Your task to perform on an android device: check battery use Image 0: 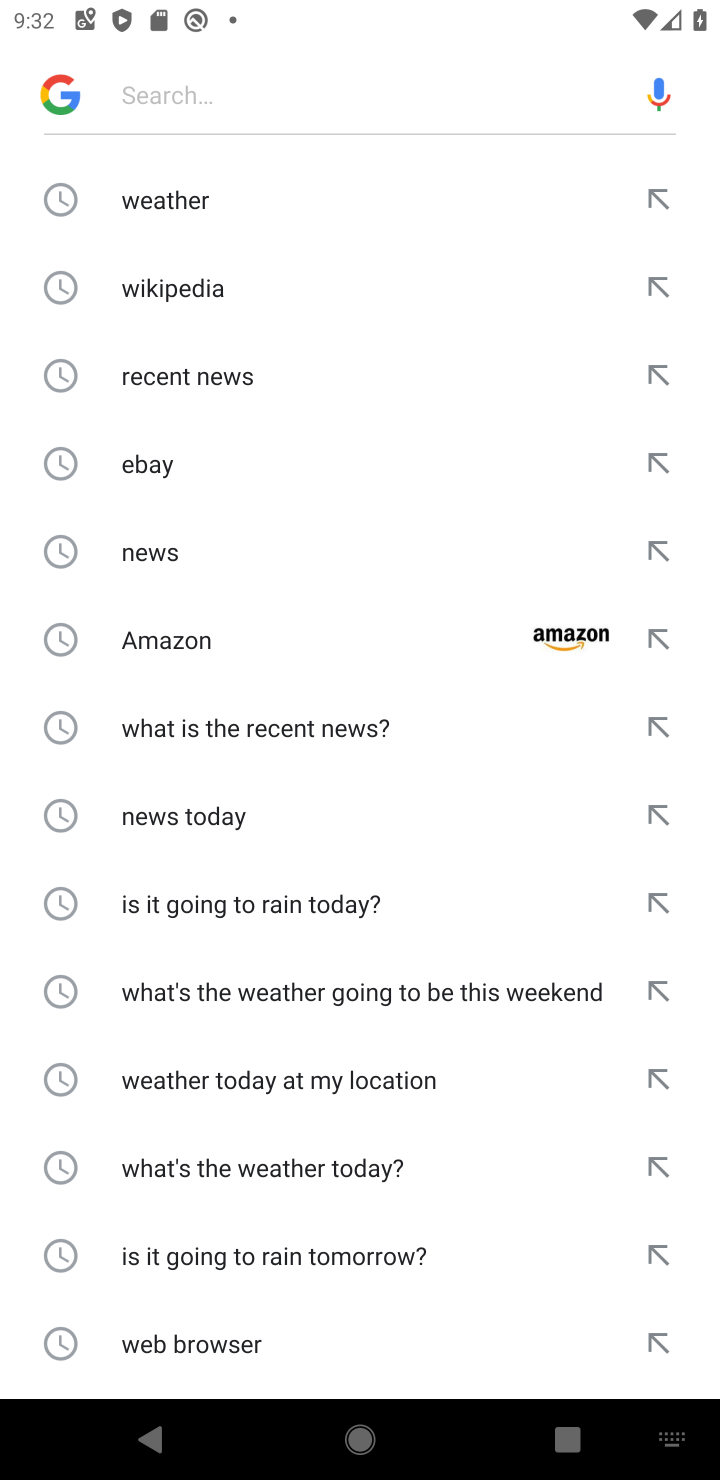
Step 0: press home button
Your task to perform on an android device: check battery use Image 1: 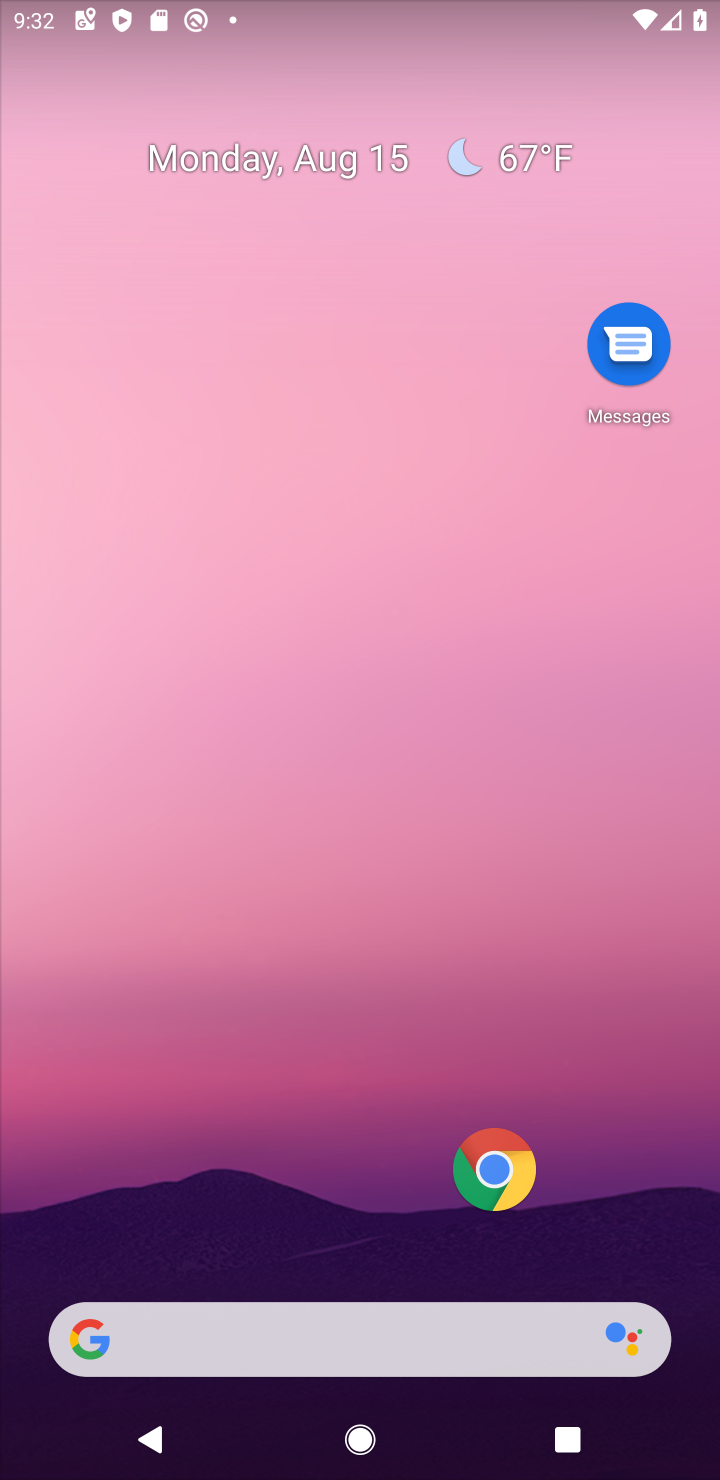
Step 1: click (610, 34)
Your task to perform on an android device: check battery use Image 2: 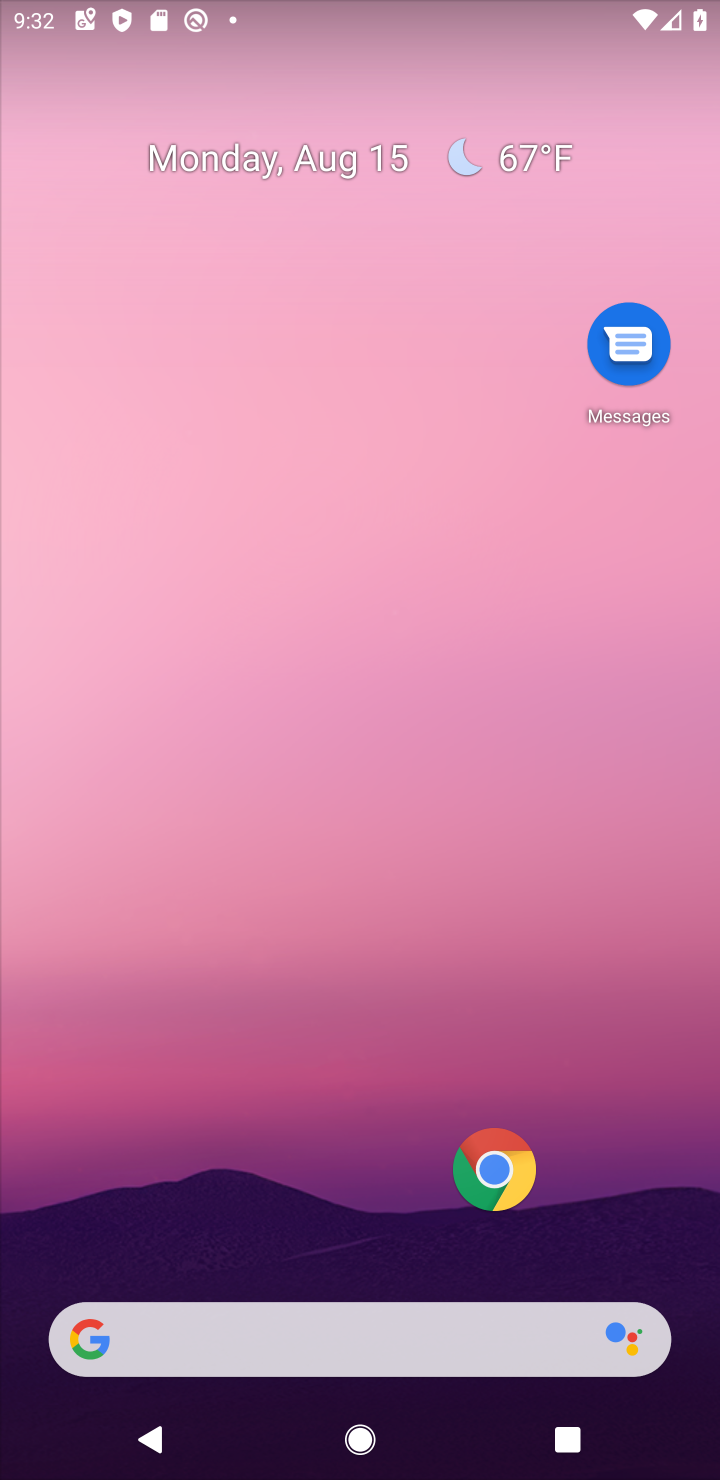
Step 2: press home button
Your task to perform on an android device: check battery use Image 3: 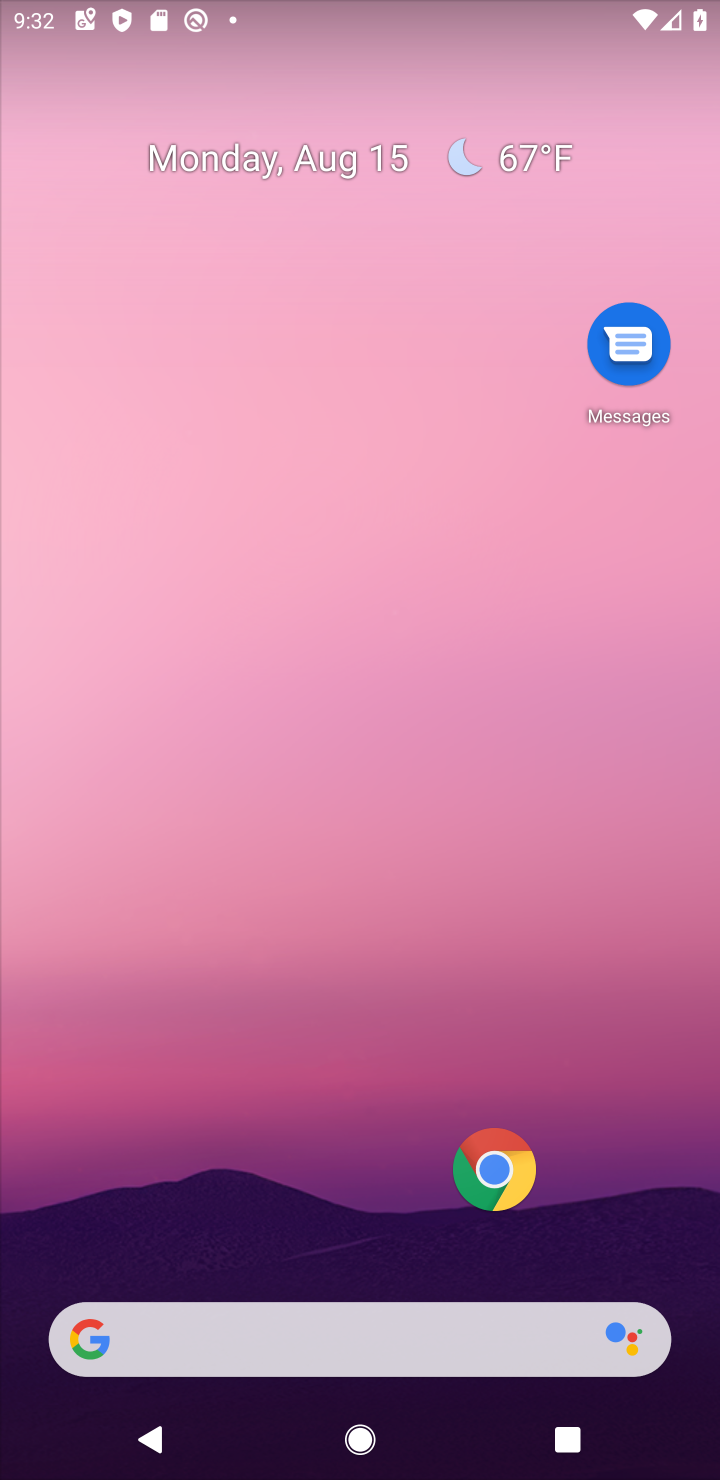
Step 3: drag from (366, 1165) to (595, 173)
Your task to perform on an android device: check battery use Image 4: 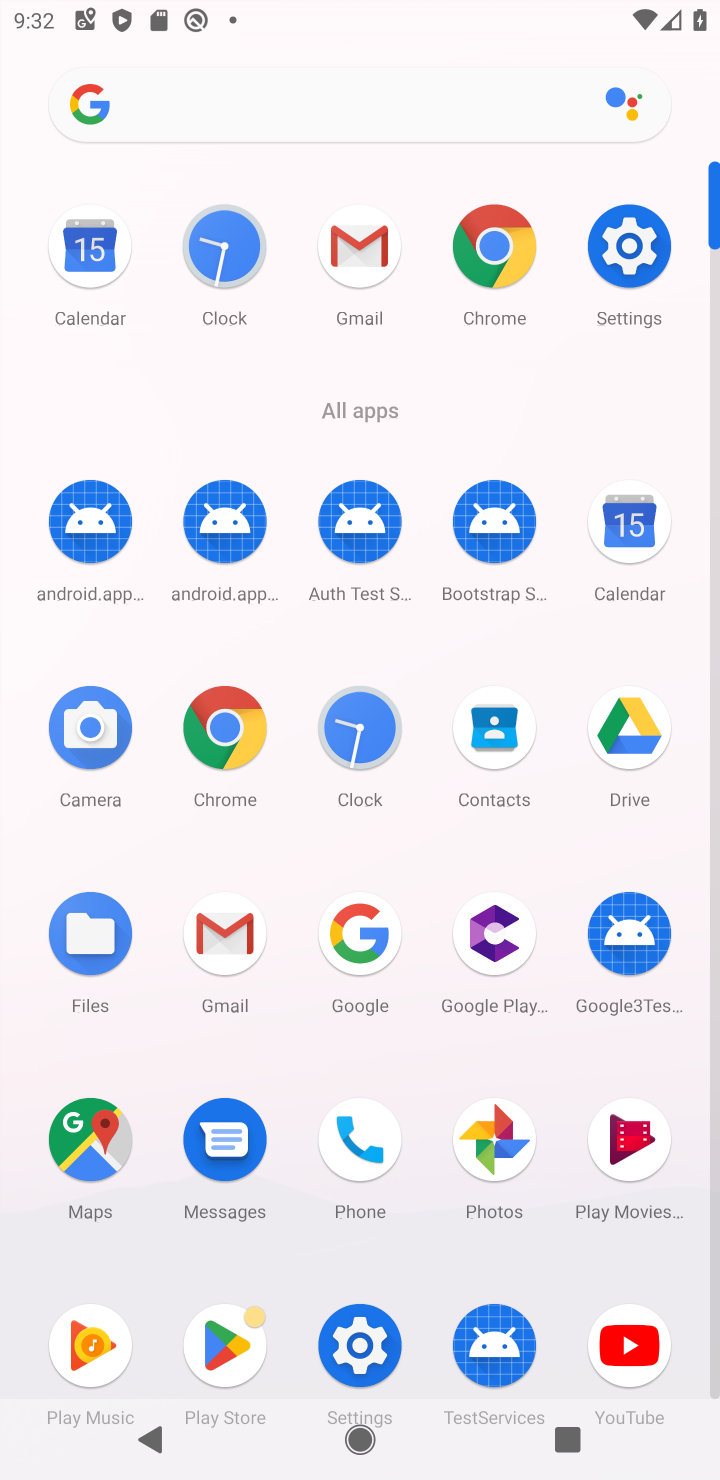
Step 4: drag from (637, 245) to (627, 804)
Your task to perform on an android device: check battery use Image 5: 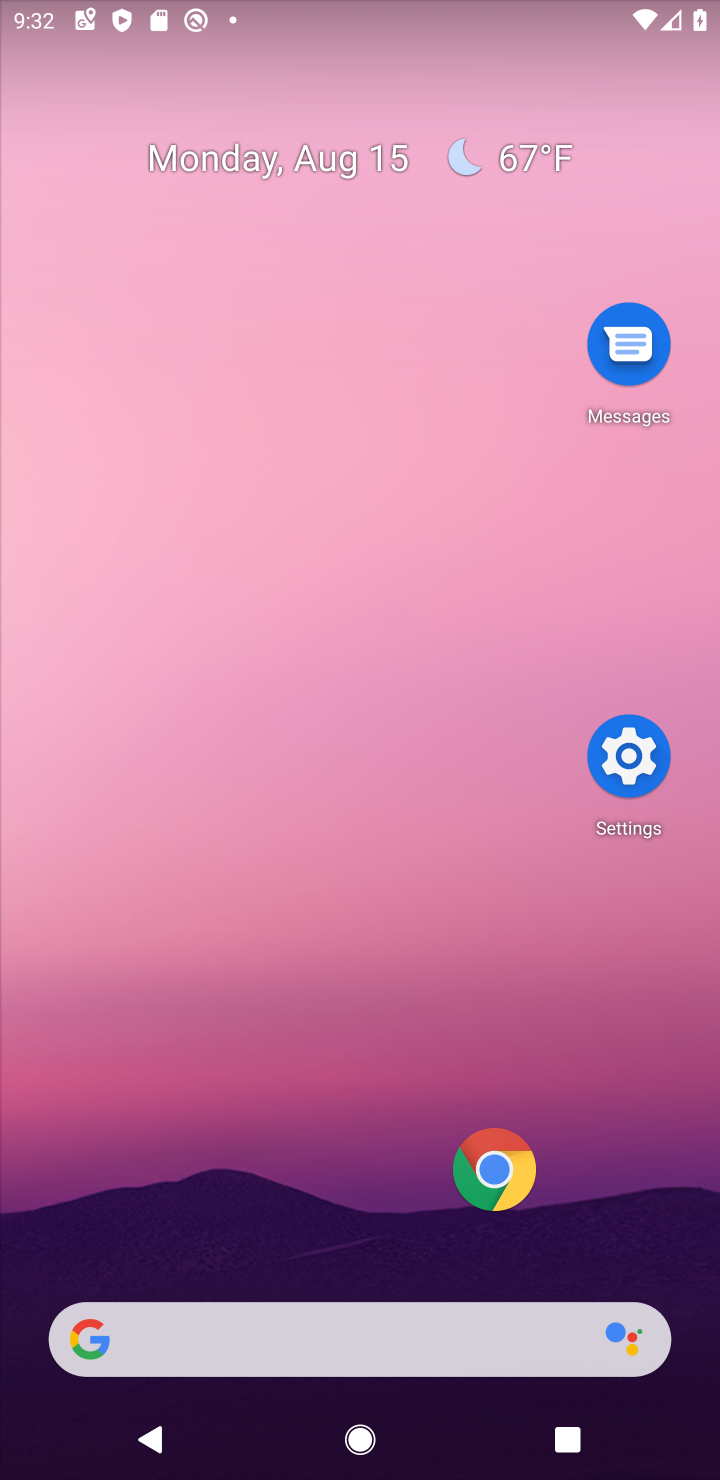
Step 5: drag from (633, 334) to (105, 1147)
Your task to perform on an android device: check battery use Image 6: 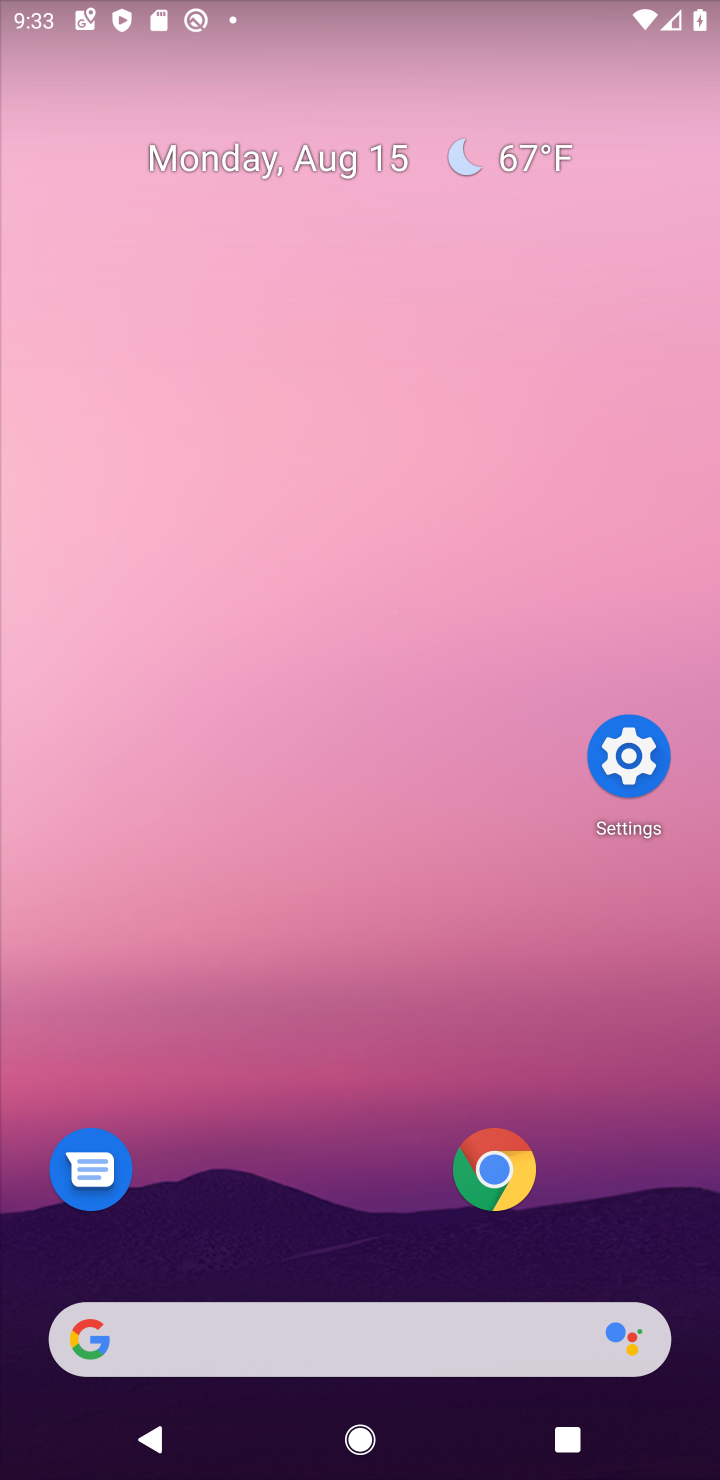
Step 6: click (610, 761)
Your task to perform on an android device: check battery use Image 7: 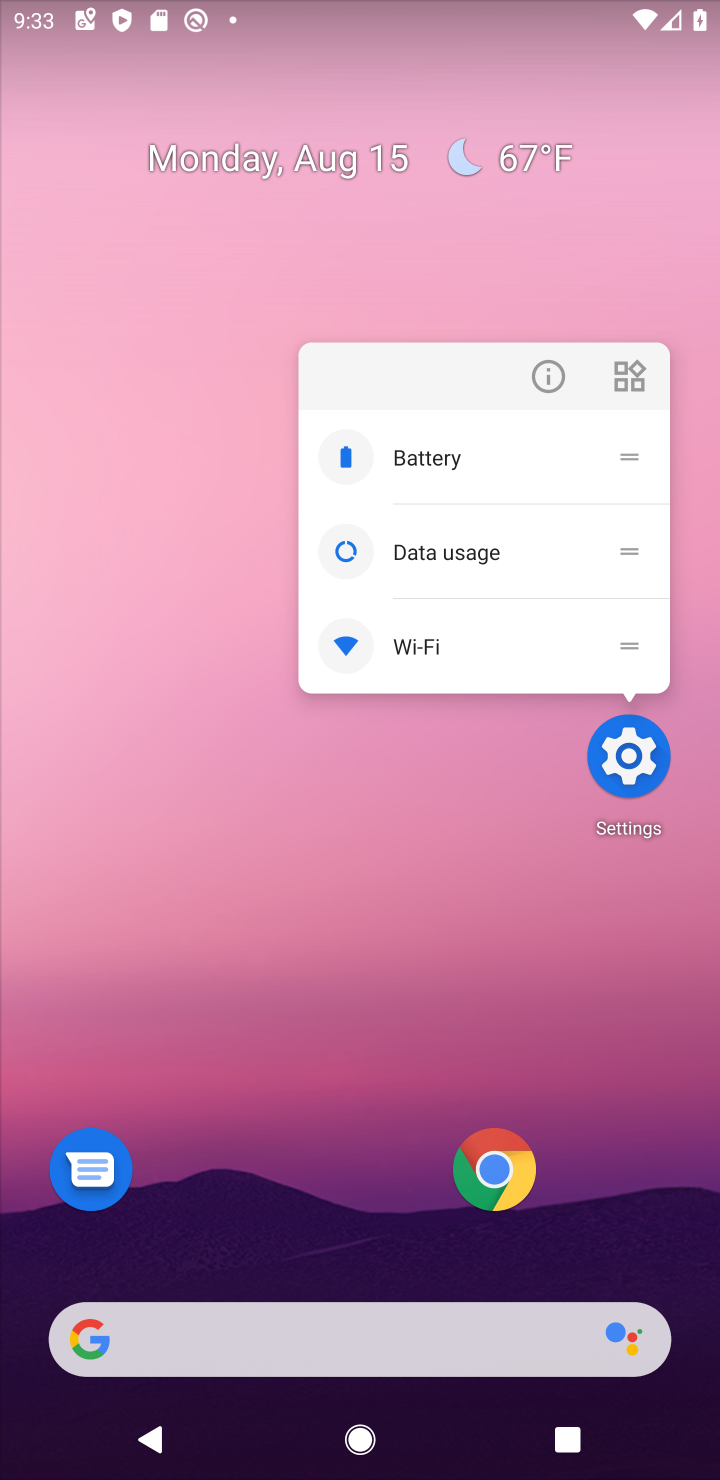
Step 7: click (640, 748)
Your task to perform on an android device: check battery use Image 8: 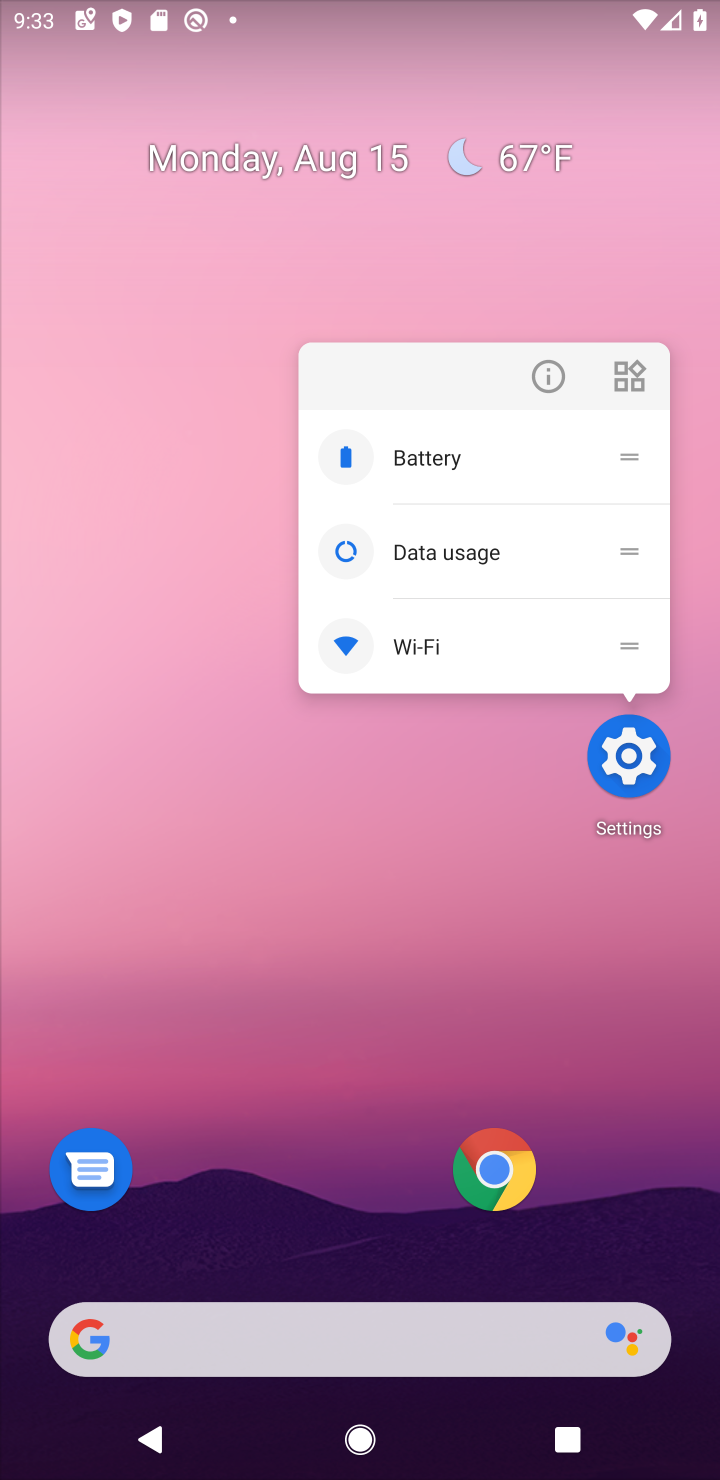
Step 8: click (640, 750)
Your task to perform on an android device: check battery use Image 9: 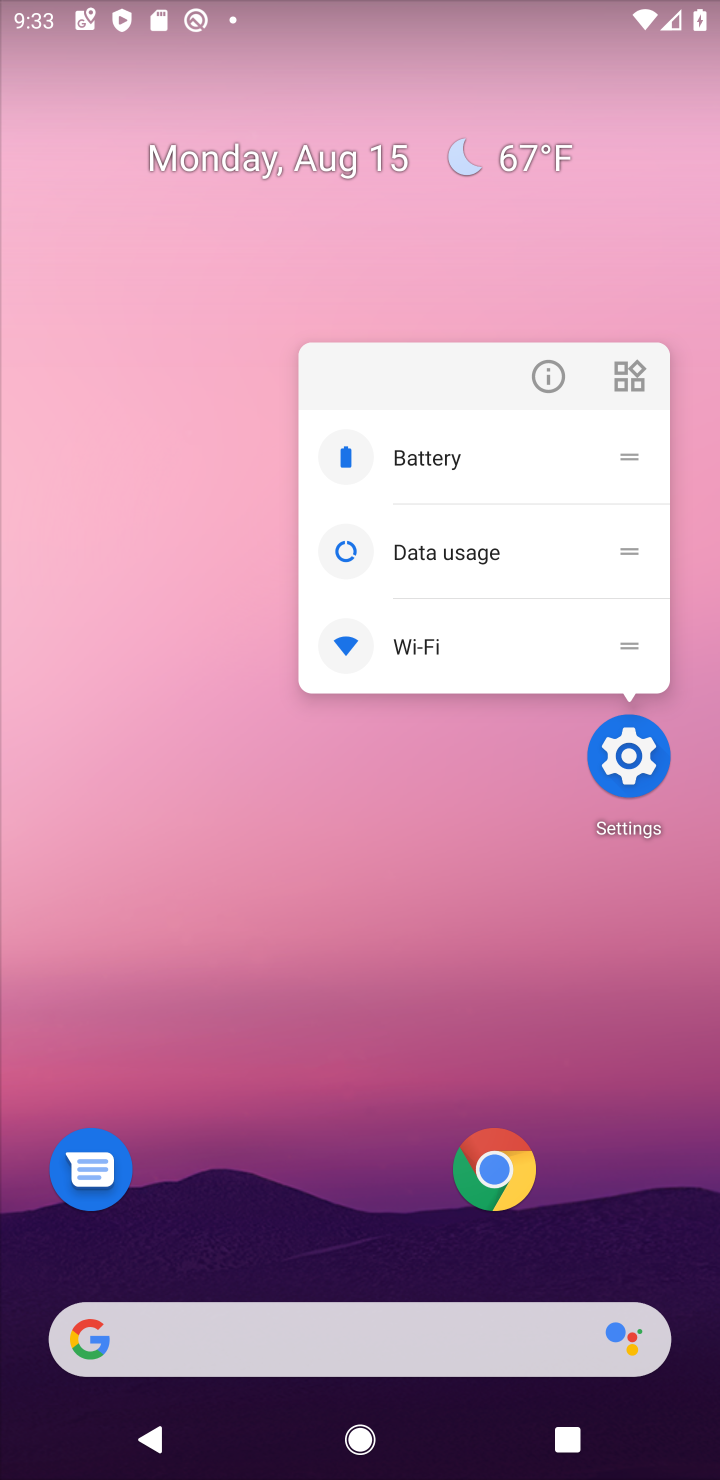
Step 9: click (640, 752)
Your task to perform on an android device: check battery use Image 10: 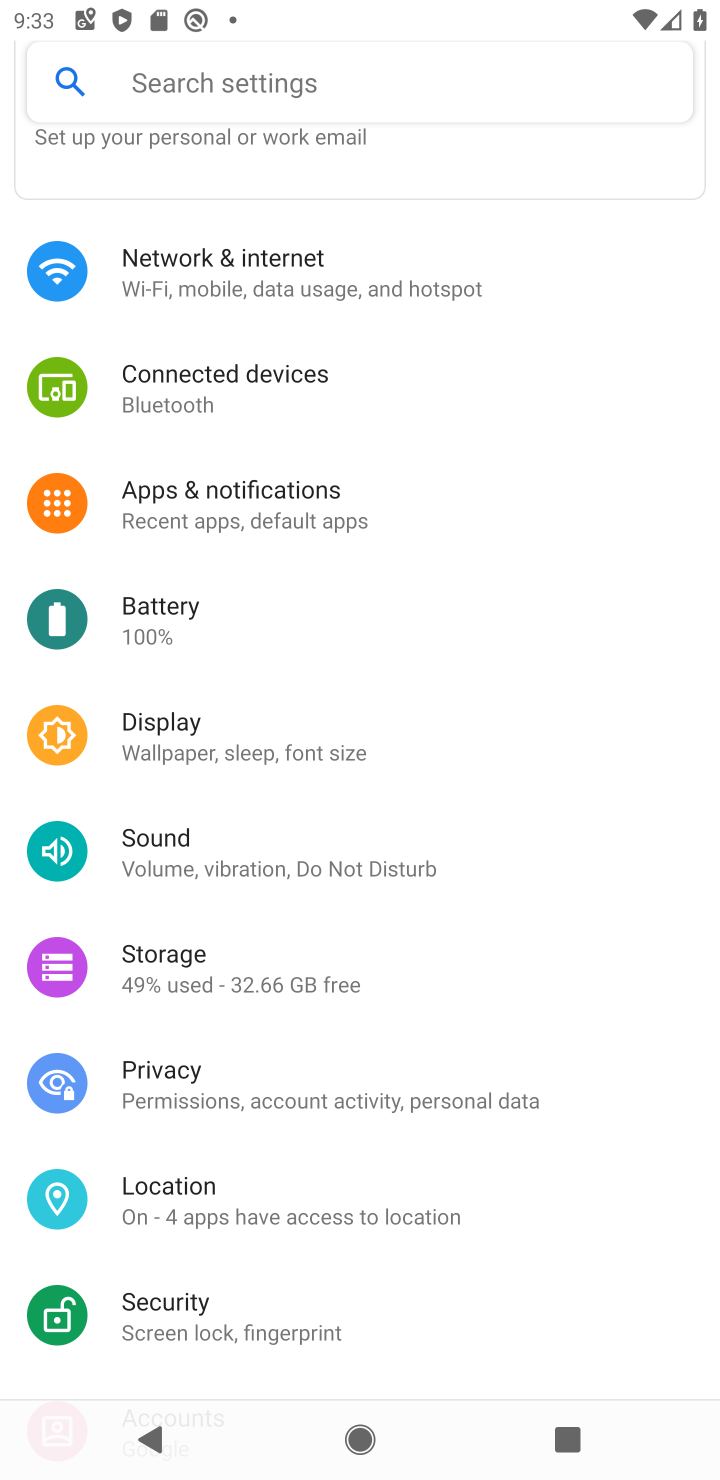
Step 10: click (204, 604)
Your task to perform on an android device: check battery use Image 11: 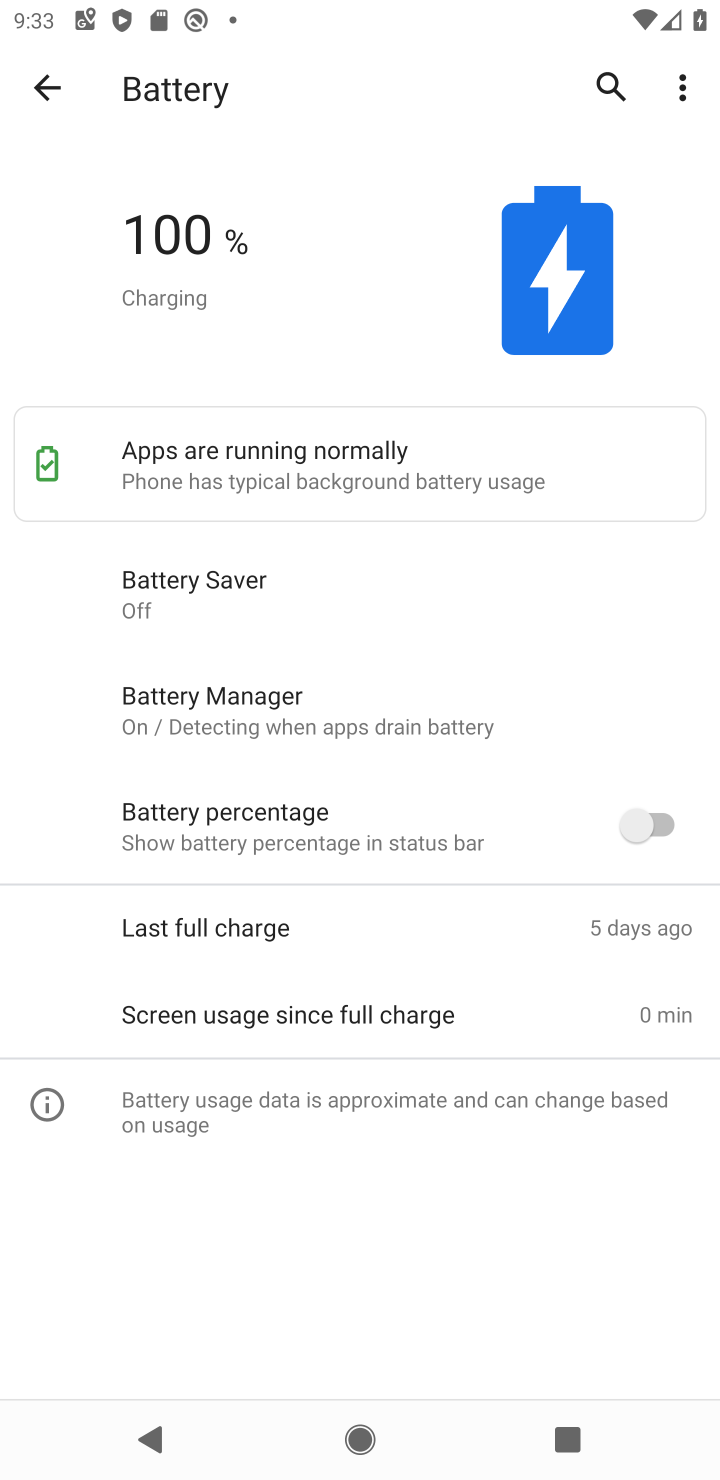
Step 11: click (684, 77)
Your task to perform on an android device: check battery use Image 12: 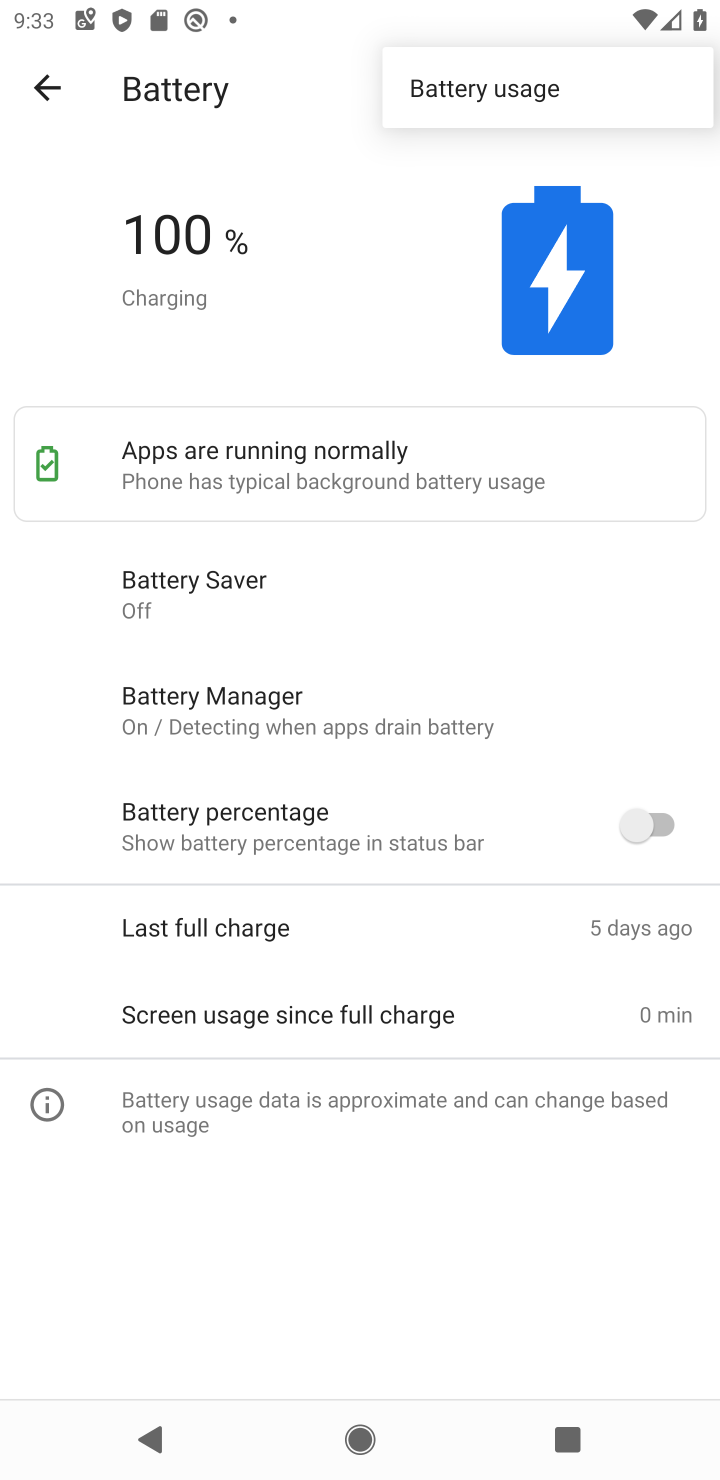
Step 12: click (507, 85)
Your task to perform on an android device: check battery use Image 13: 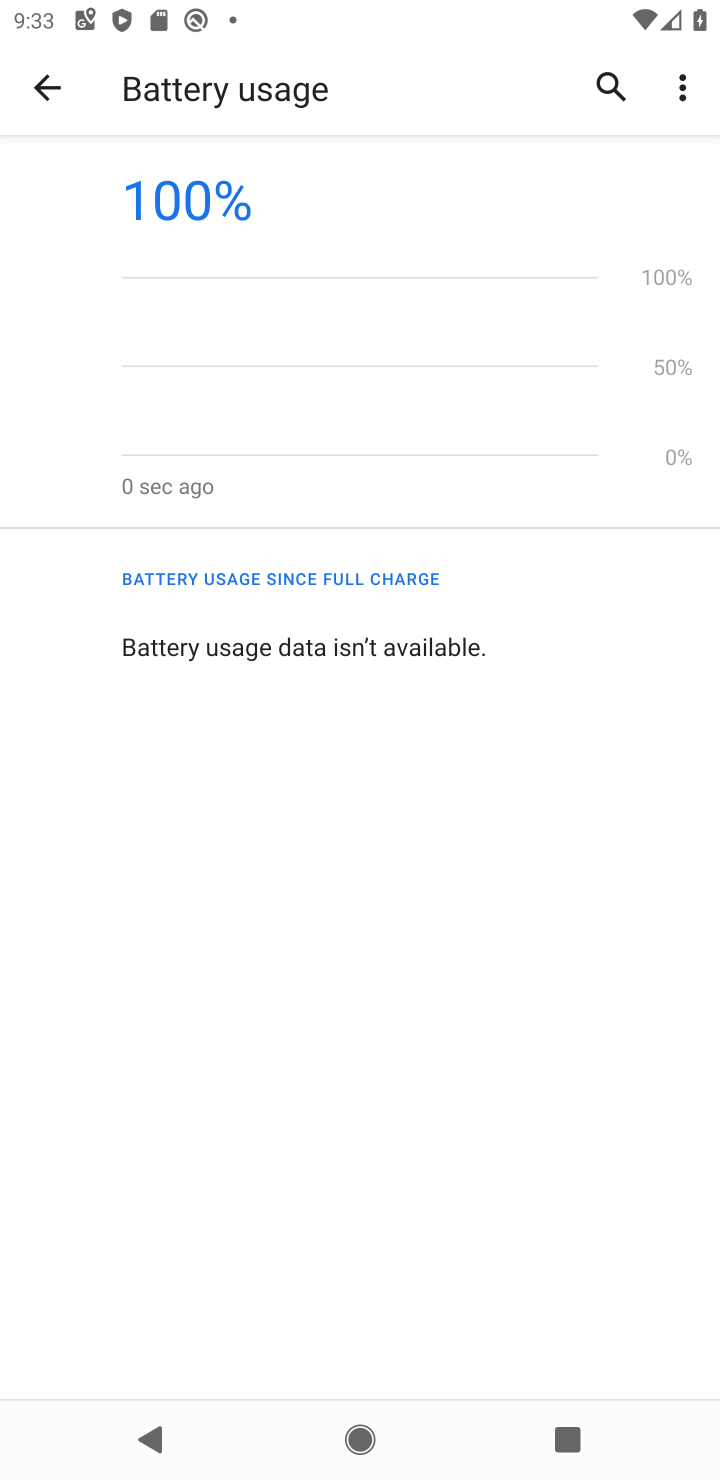
Step 13: task complete